Your task to perform on an android device: Go to battery settings Image 0: 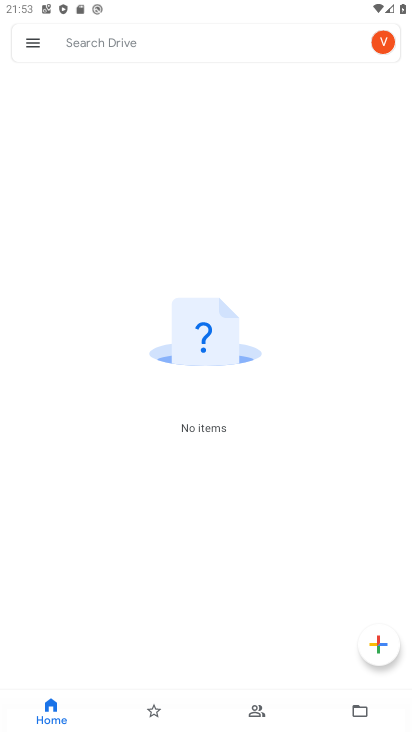
Step 0: press home button
Your task to perform on an android device: Go to battery settings Image 1: 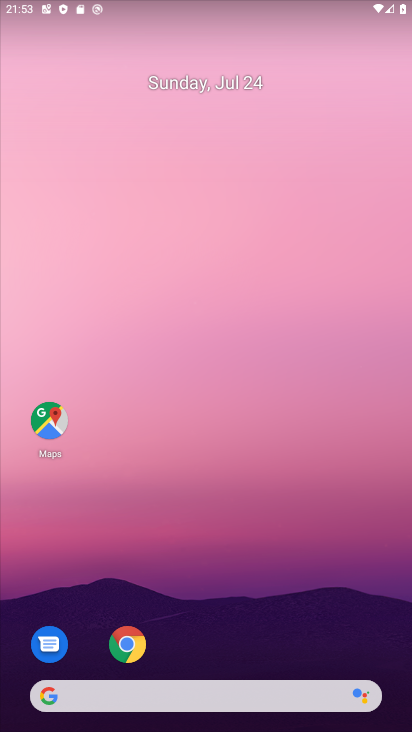
Step 1: drag from (323, 640) to (264, 170)
Your task to perform on an android device: Go to battery settings Image 2: 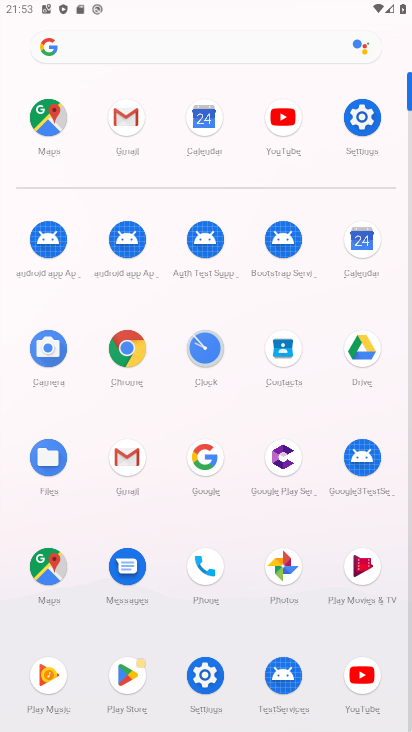
Step 2: click (204, 674)
Your task to perform on an android device: Go to battery settings Image 3: 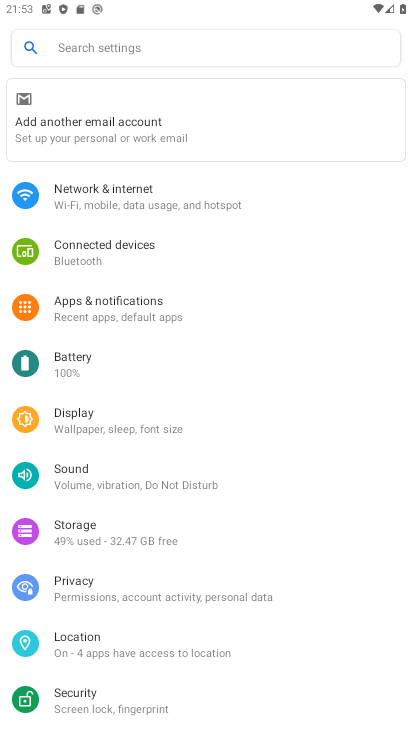
Step 3: click (68, 359)
Your task to perform on an android device: Go to battery settings Image 4: 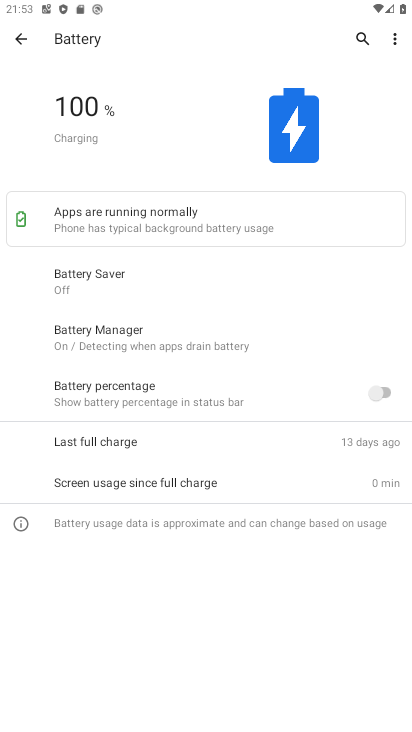
Step 4: task complete